Your task to perform on an android device: Show me productivity apps on the Play Store Image 0: 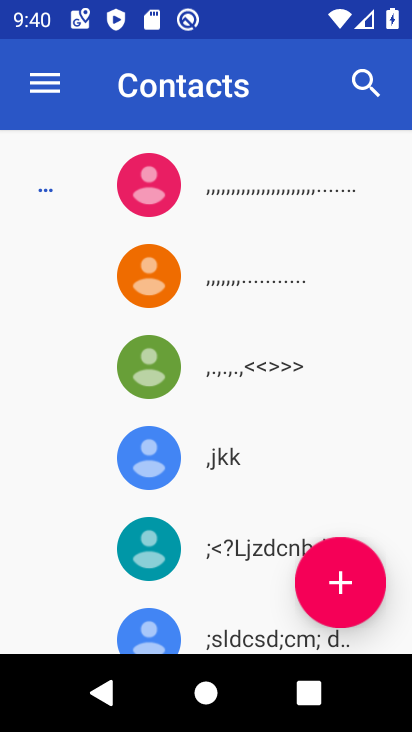
Step 0: press home button
Your task to perform on an android device: Show me productivity apps on the Play Store Image 1: 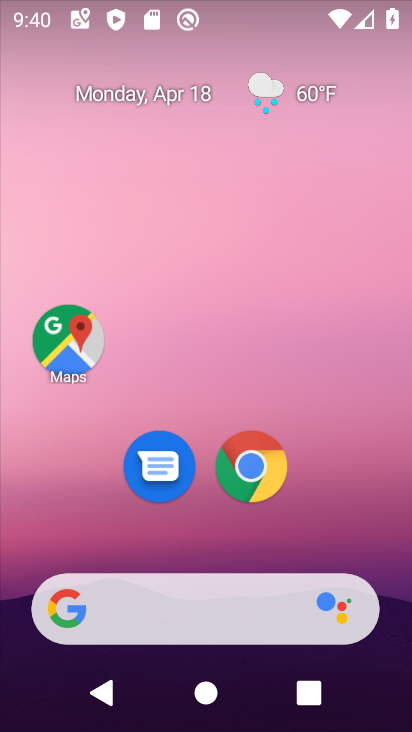
Step 1: drag from (283, 552) to (297, 55)
Your task to perform on an android device: Show me productivity apps on the Play Store Image 2: 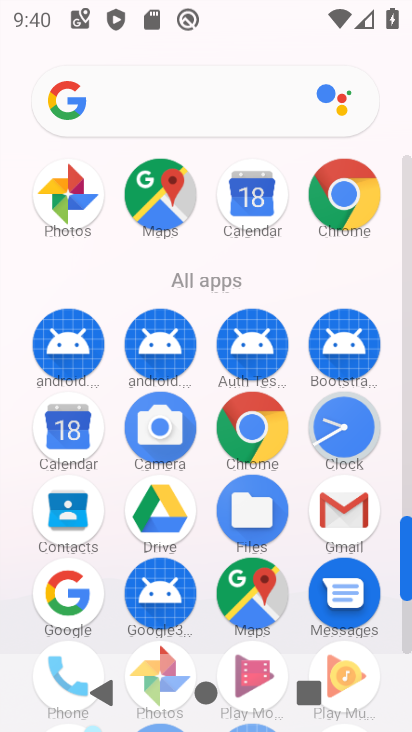
Step 2: drag from (308, 572) to (302, 102)
Your task to perform on an android device: Show me productivity apps on the Play Store Image 3: 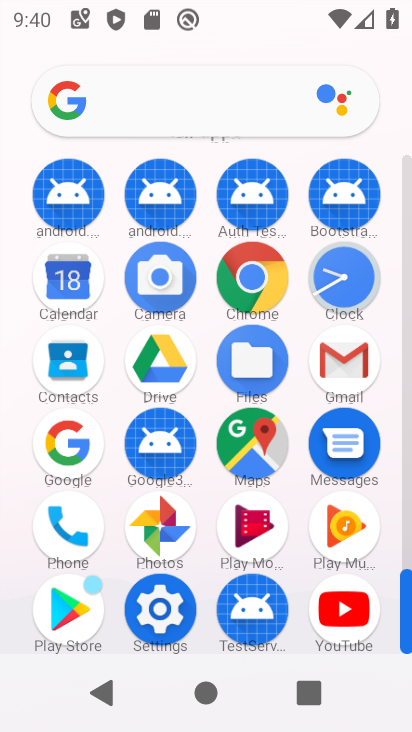
Step 3: click (56, 601)
Your task to perform on an android device: Show me productivity apps on the Play Store Image 4: 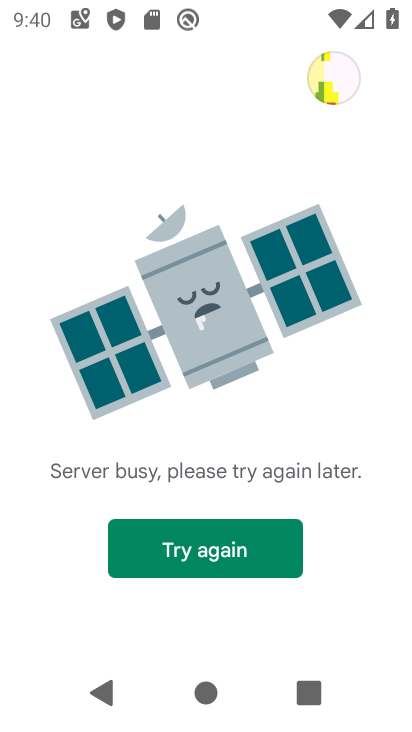
Step 4: click (258, 555)
Your task to perform on an android device: Show me productivity apps on the Play Store Image 5: 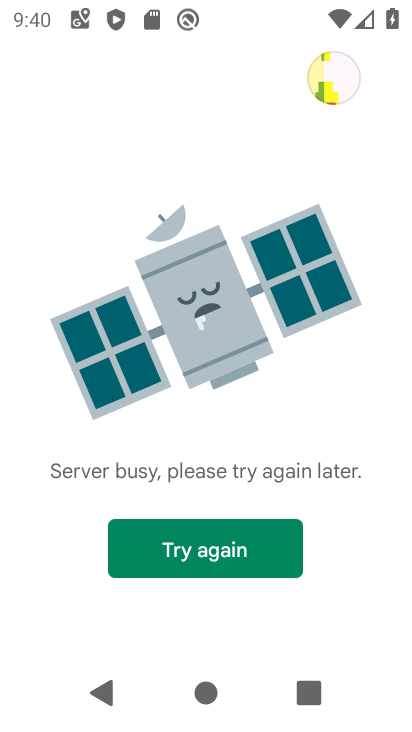
Step 5: click (258, 555)
Your task to perform on an android device: Show me productivity apps on the Play Store Image 6: 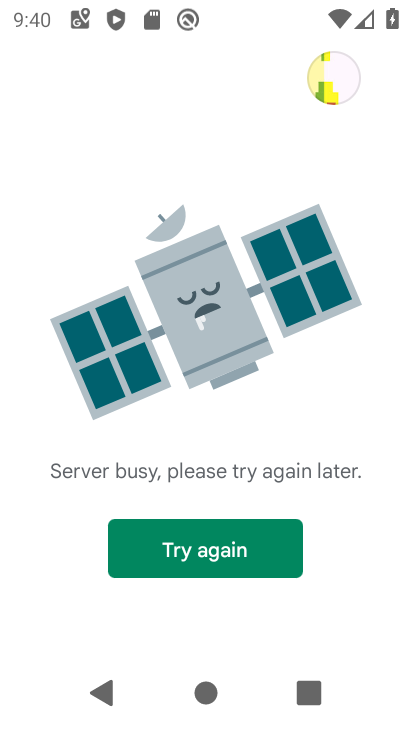
Step 6: click (258, 555)
Your task to perform on an android device: Show me productivity apps on the Play Store Image 7: 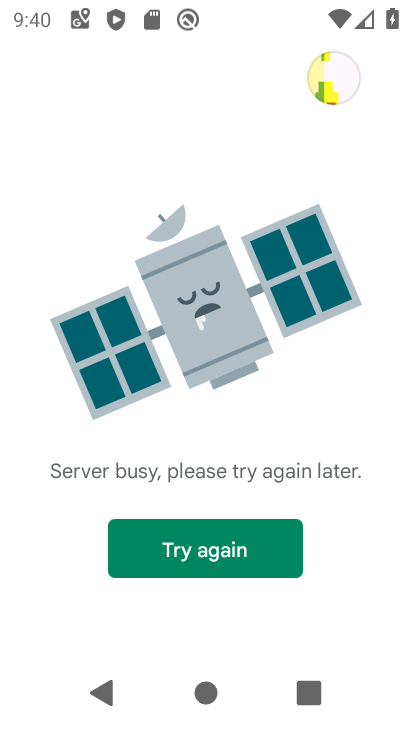
Step 7: task complete